Your task to perform on an android device: What is the recent news? Image 0: 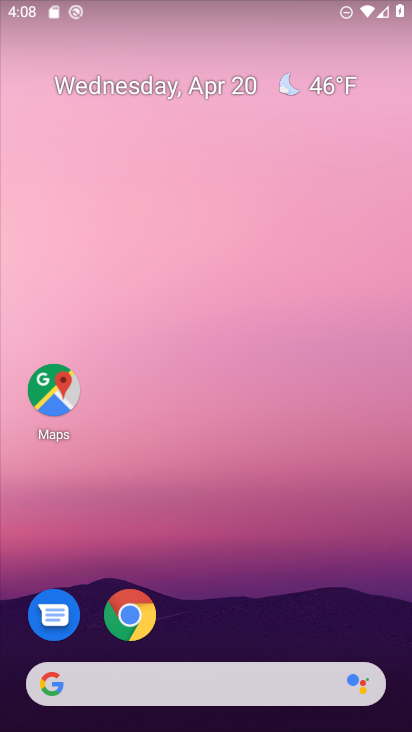
Step 0: click (188, 677)
Your task to perform on an android device: What is the recent news? Image 1: 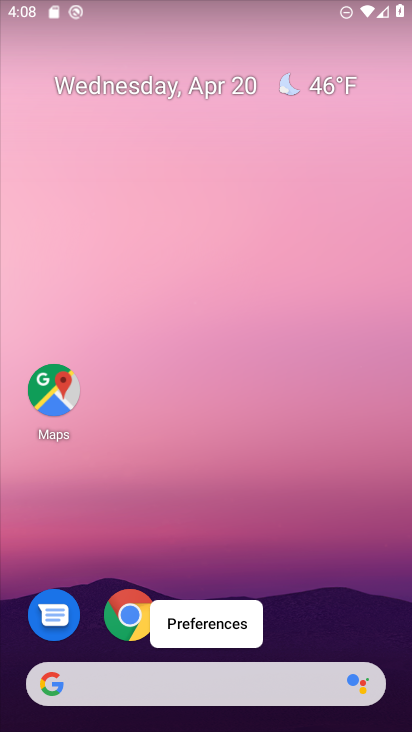
Step 1: click (236, 688)
Your task to perform on an android device: What is the recent news? Image 2: 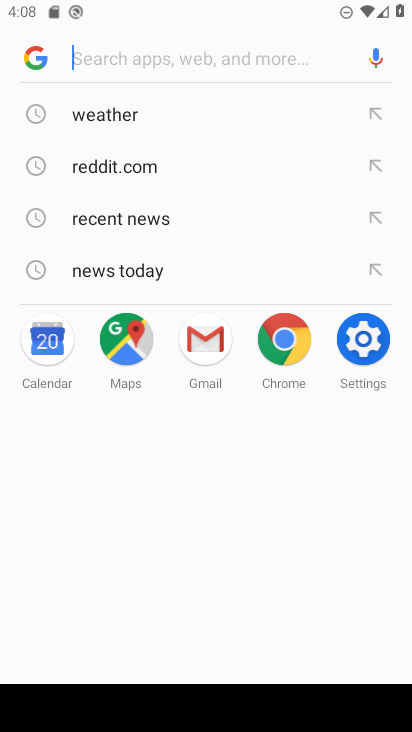
Step 2: click (103, 212)
Your task to perform on an android device: What is the recent news? Image 3: 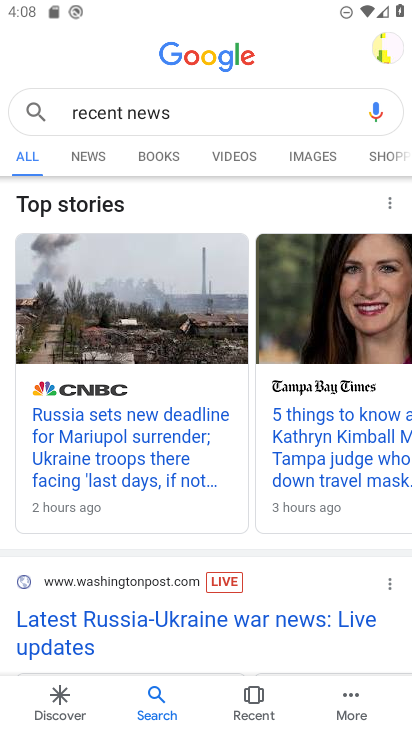
Step 3: task complete